Your task to perform on an android device: set the timer Image 0: 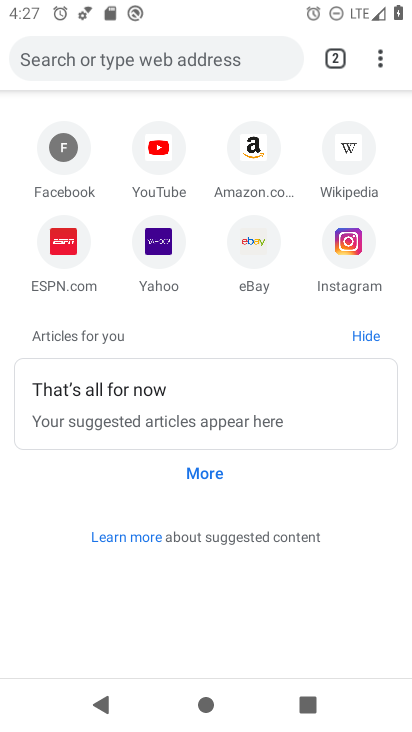
Step 0: press home button
Your task to perform on an android device: set the timer Image 1: 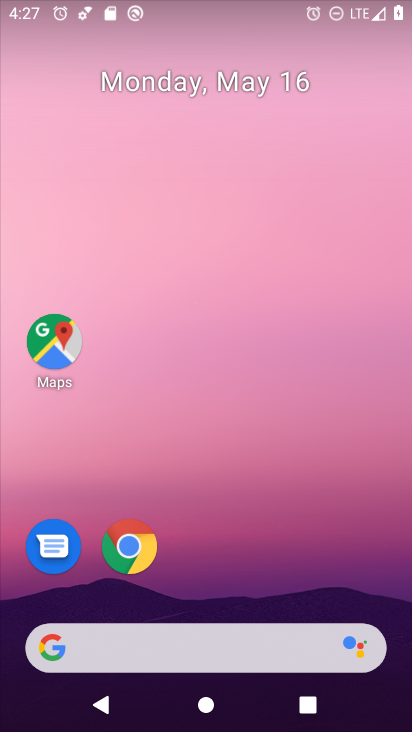
Step 1: drag from (352, 546) to (372, 113)
Your task to perform on an android device: set the timer Image 2: 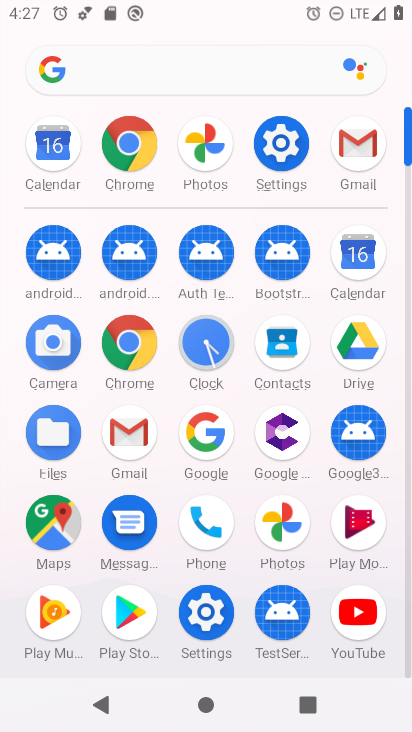
Step 2: click (212, 367)
Your task to perform on an android device: set the timer Image 3: 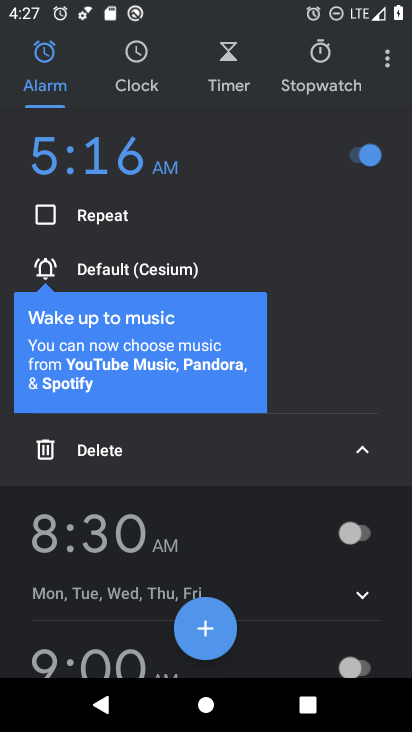
Step 3: click (221, 63)
Your task to perform on an android device: set the timer Image 4: 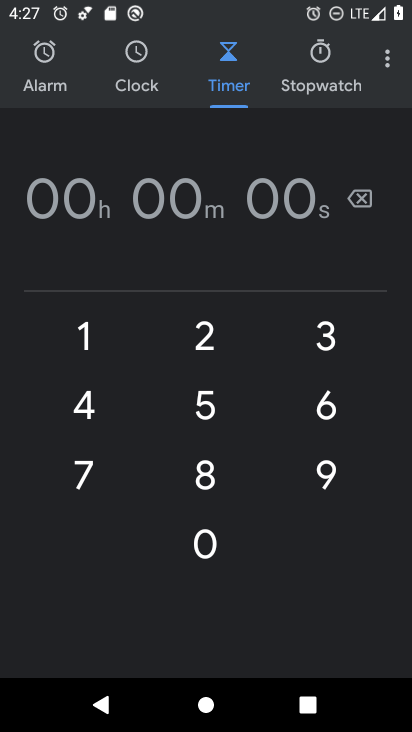
Step 4: click (210, 409)
Your task to perform on an android device: set the timer Image 5: 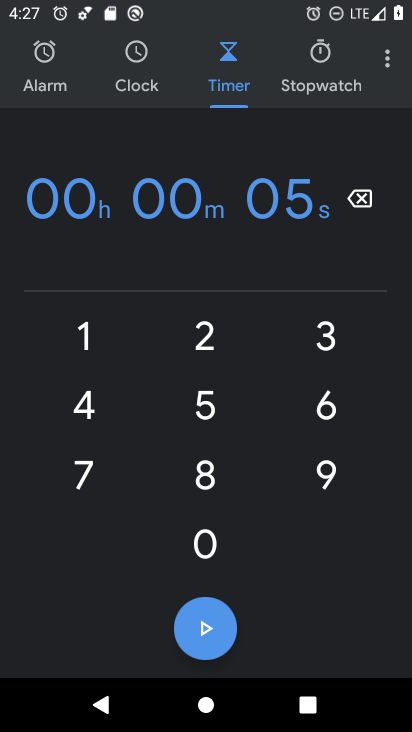
Step 5: click (203, 643)
Your task to perform on an android device: set the timer Image 6: 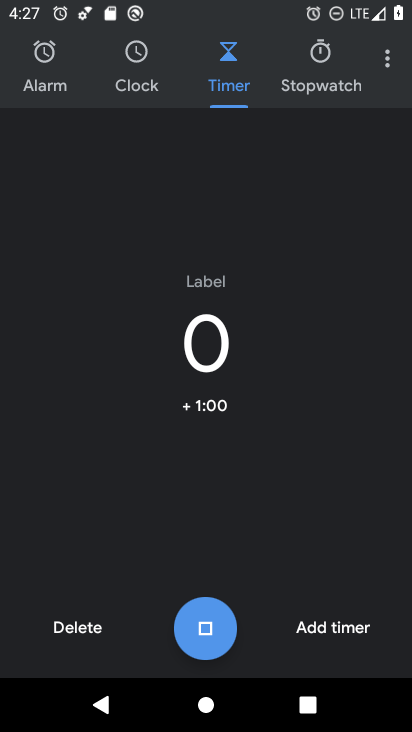
Step 6: task complete